Your task to perform on an android device: turn off location Image 0: 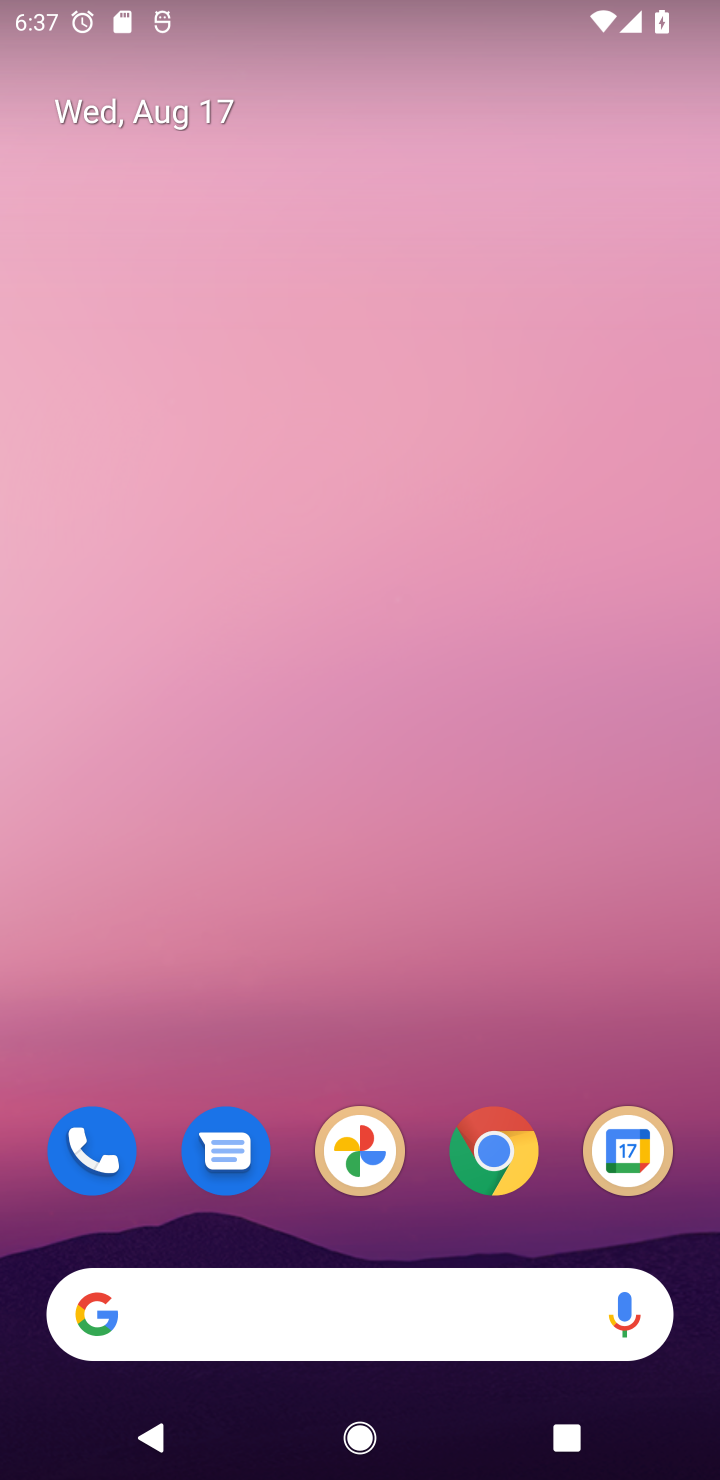
Step 0: drag from (446, 662) to (492, 302)
Your task to perform on an android device: turn off location Image 1: 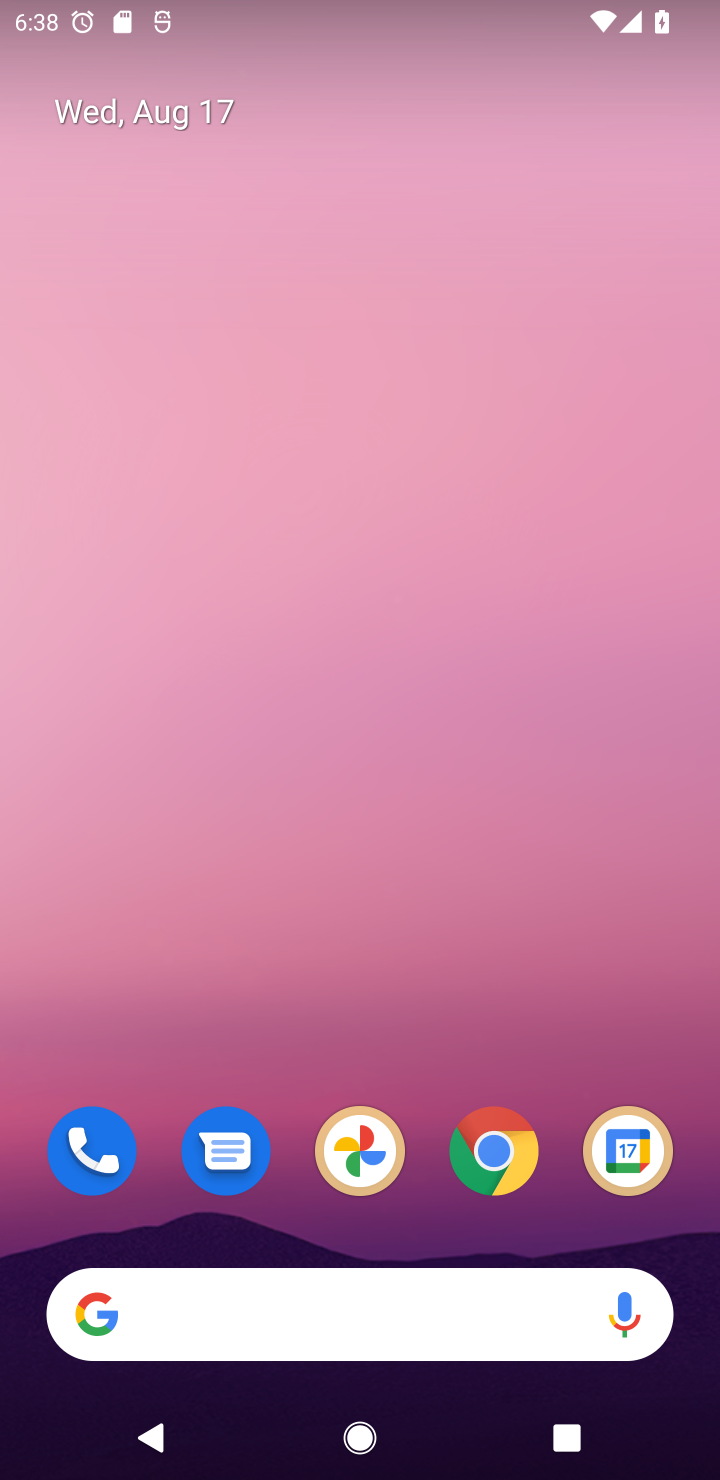
Step 1: drag from (439, 1220) to (442, 460)
Your task to perform on an android device: turn off location Image 2: 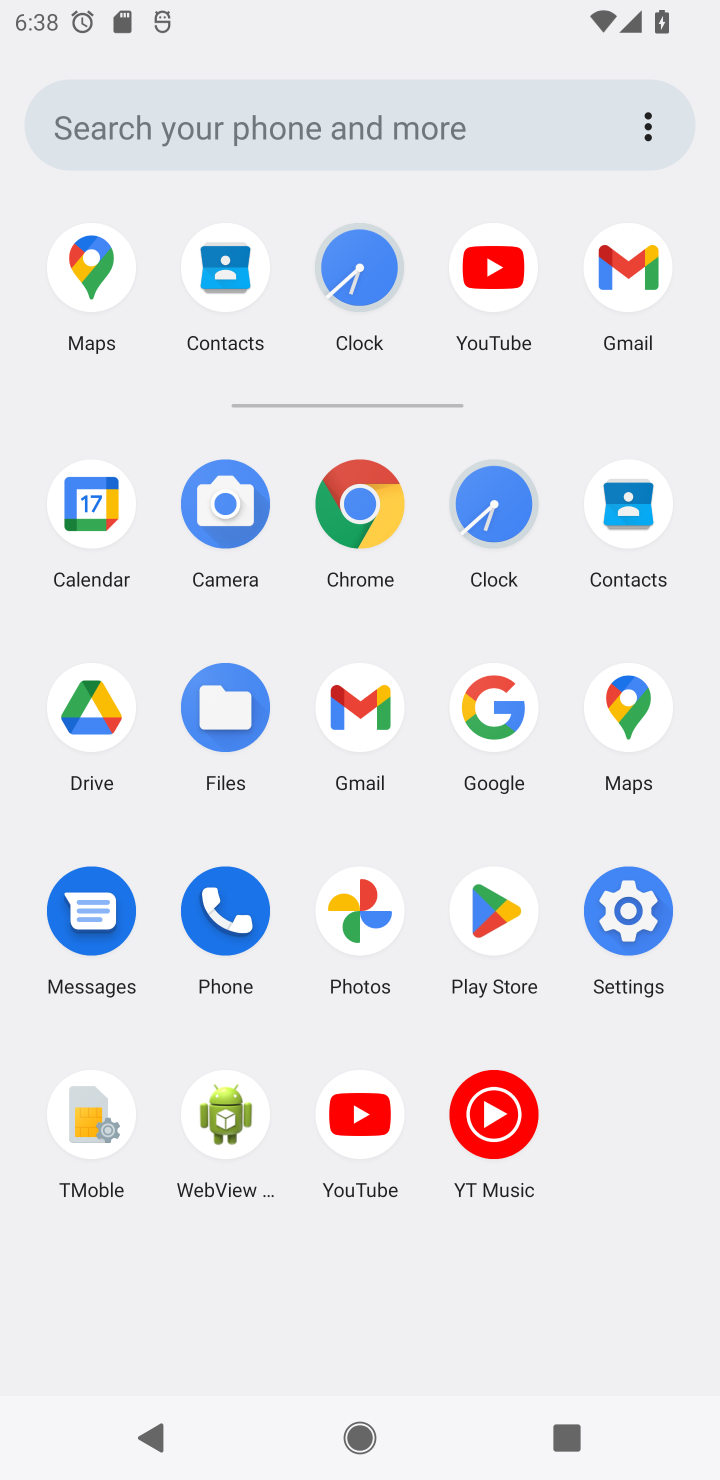
Step 2: click (615, 914)
Your task to perform on an android device: turn off location Image 3: 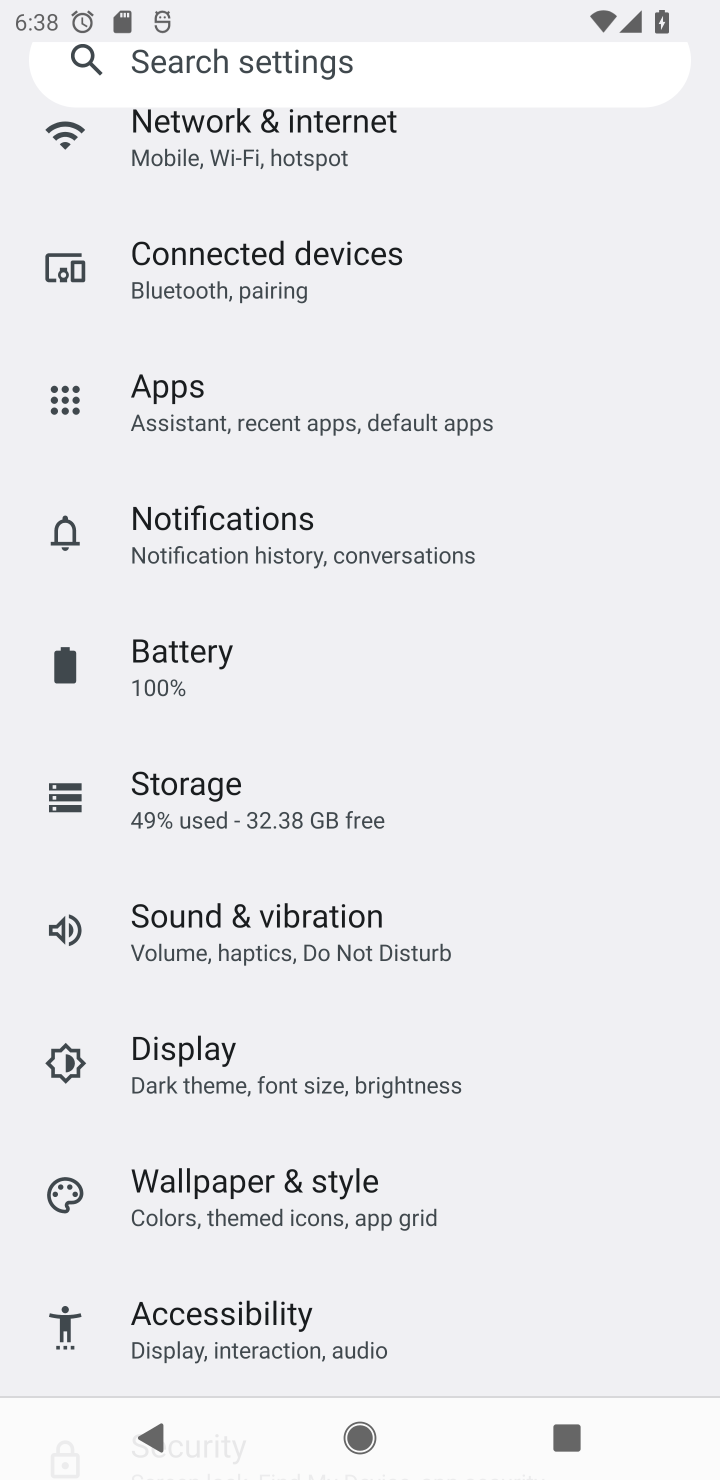
Step 3: drag from (243, 613) to (267, 386)
Your task to perform on an android device: turn off location Image 4: 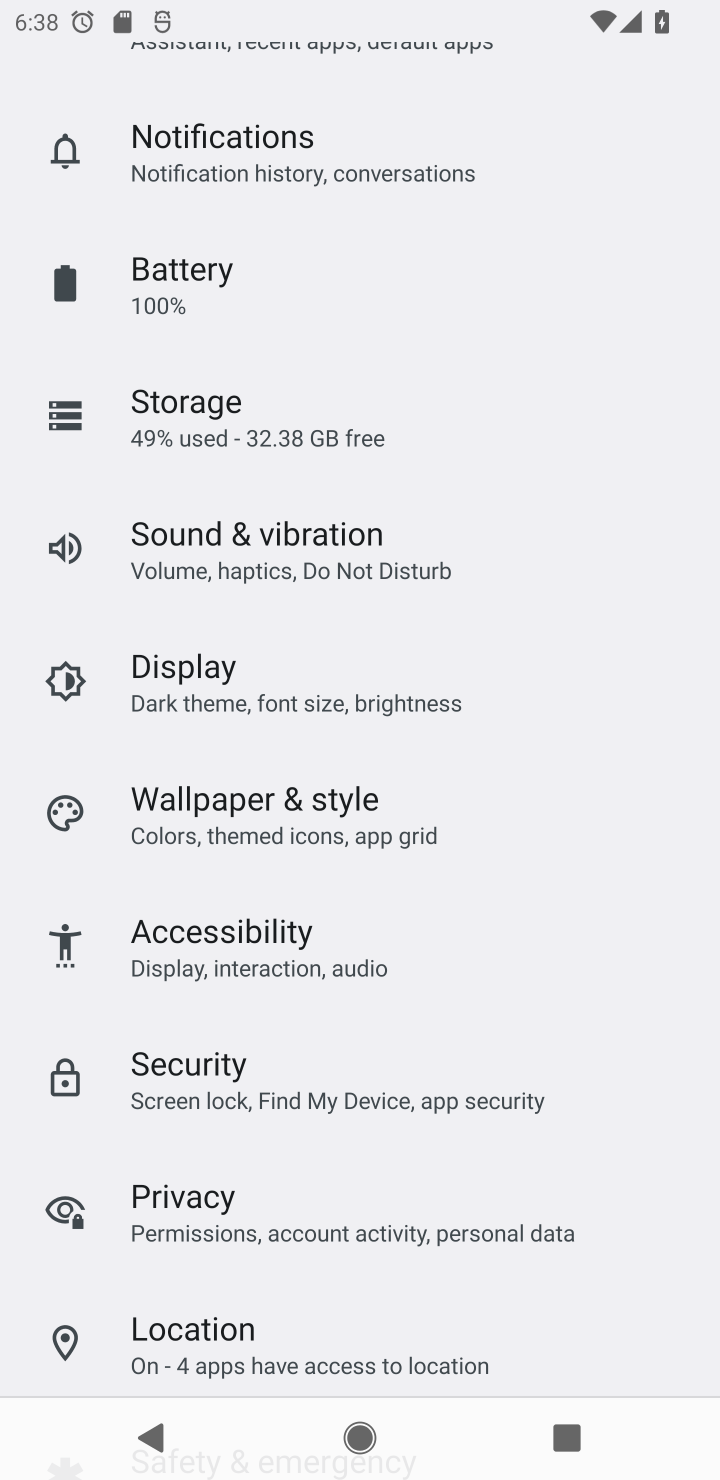
Step 4: click (267, 1306)
Your task to perform on an android device: turn off location Image 5: 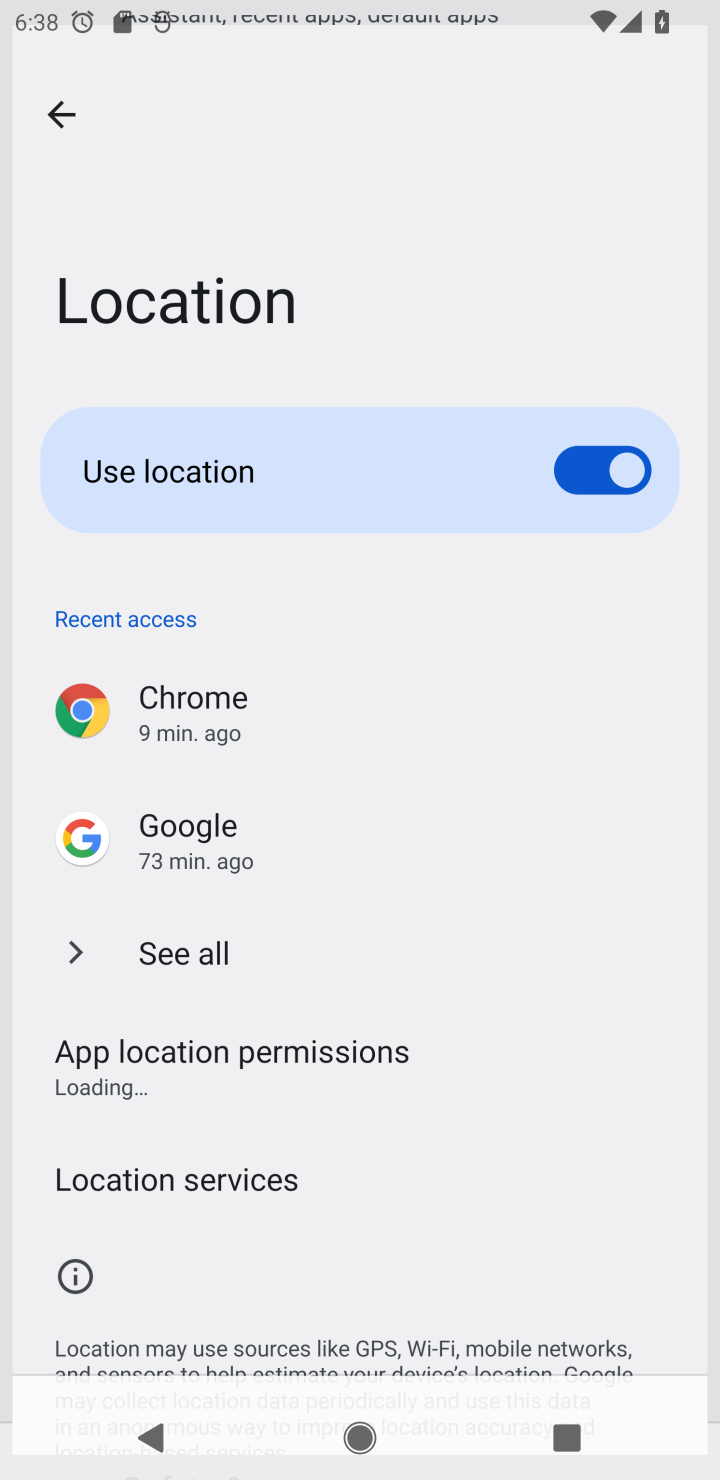
Step 5: task complete